Your task to perform on an android device: Open network settings Image 0: 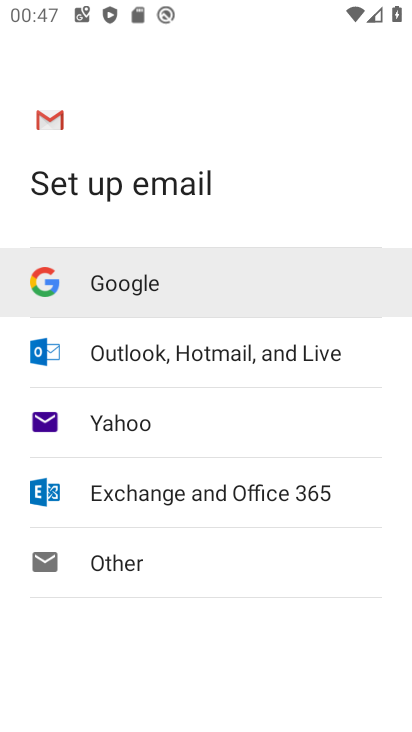
Step 0: press back button
Your task to perform on an android device: Open network settings Image 1: 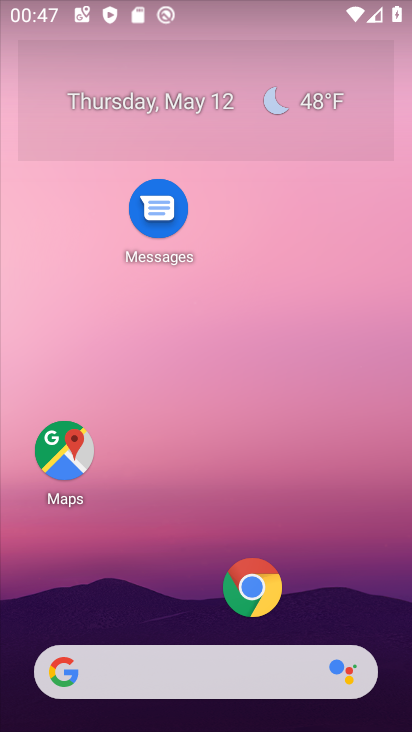
Step 1: drag from (167, 621) to (332, 627)
Your task to perform on an android device: Open network settings Image 2: 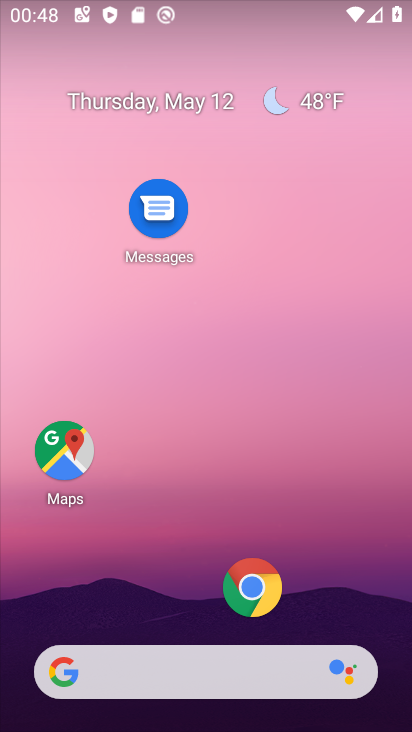
Step 2: click (53, 167)
Your task to perform on an android device: Open network settings Image 3: 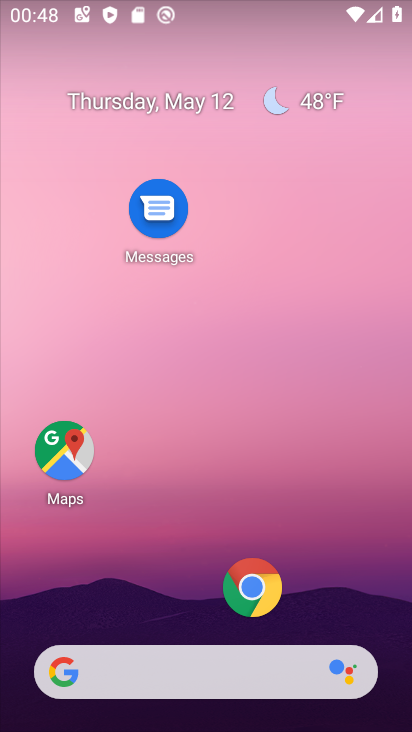
Step 3: drag from (189, 637) to (118, 6)
Your task to perform on an android device: Open network settings Image 4: 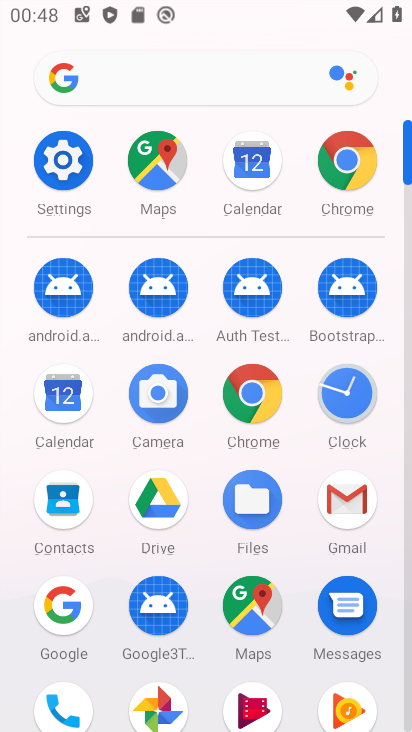
Step 4: click (75, 160)
Your task to perform on an android device: Open network settings Image 5: 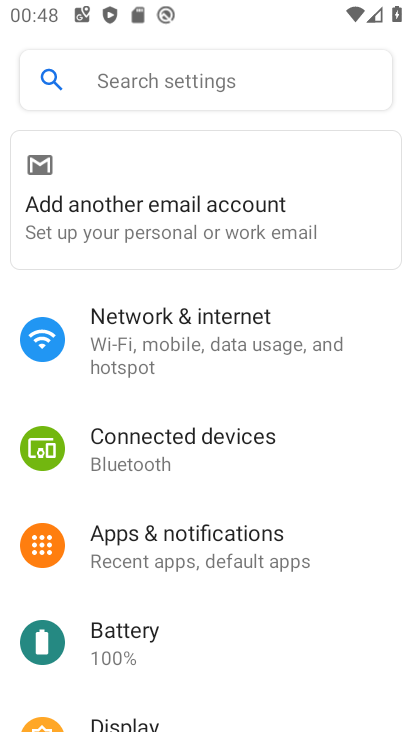
Step 5: click (311, 354)
Your task to perform on an android device: Open network settings Image 6: 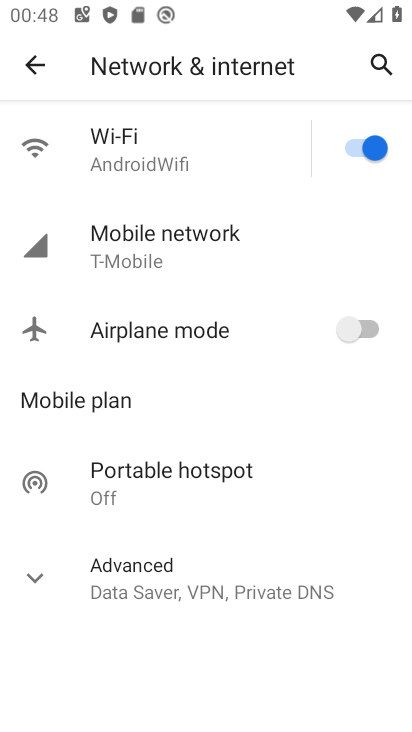
Step 6: click (242, 248)
Your task to perform on an android device: Open network settings Image 7: 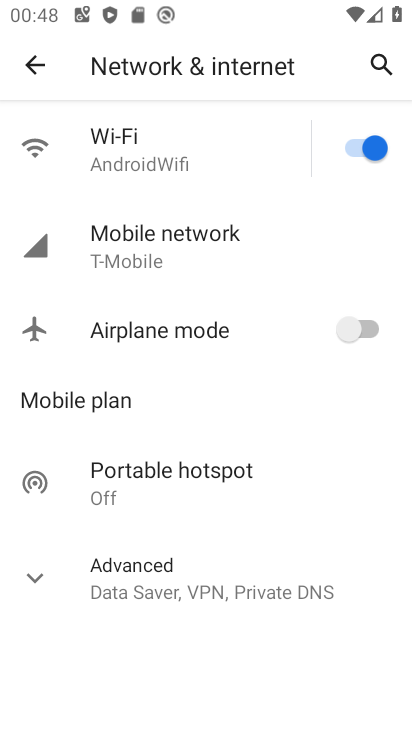
Step 7: task complete